Your task to perform on an android device: Go to Yahoo.com Image 0: 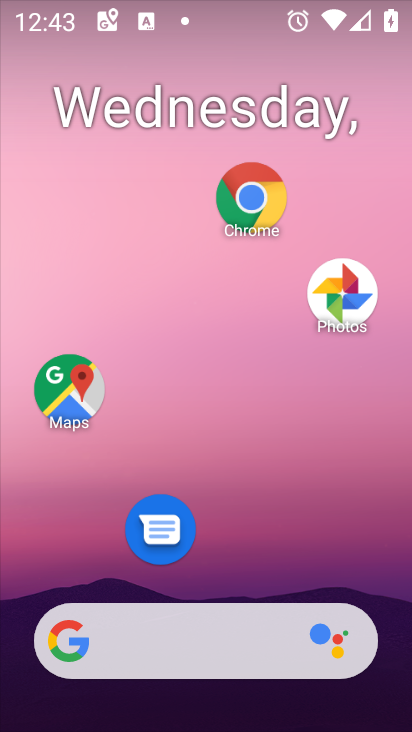
Step 0: press home button
Your task to perform on an android device: Go to Yahoo.com Image 1: 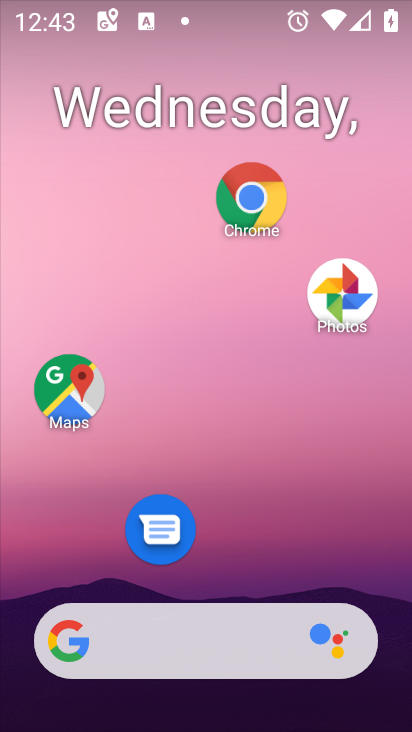
Step 1: drag from (211, 644) to (178, 60)
Your task to perform on an android device: Go to Yahoo.com Image 2: 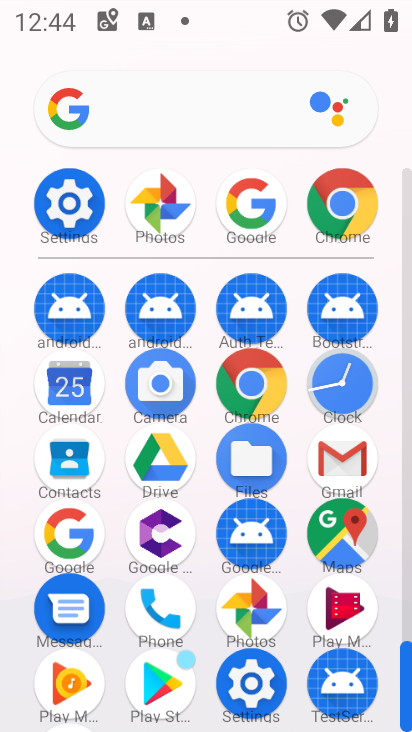
Step 2: click (353, 227)
Your task to perform on an android device: Go to Yahoo.com Image 3: 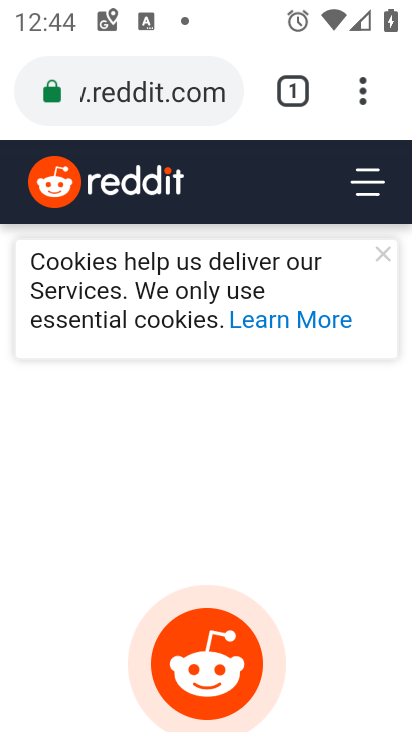
Step 3: click (196, 107)
Your task to perform on an android device: Go to Yahoo.com Image 4: 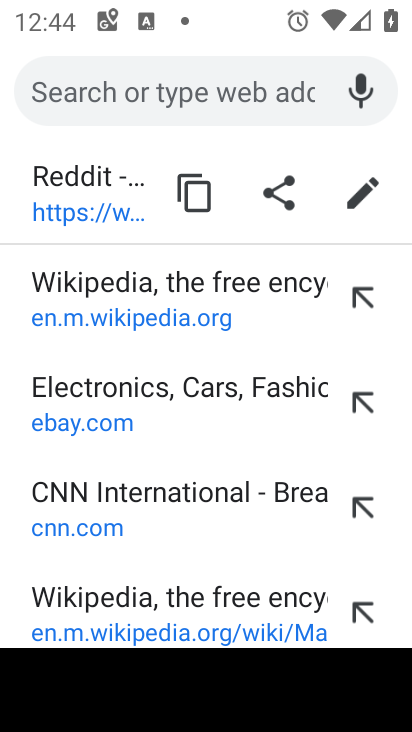
Step 4: type "yahoo"
Your task to perform on an android device: Go to Yahoo.com Image 5: 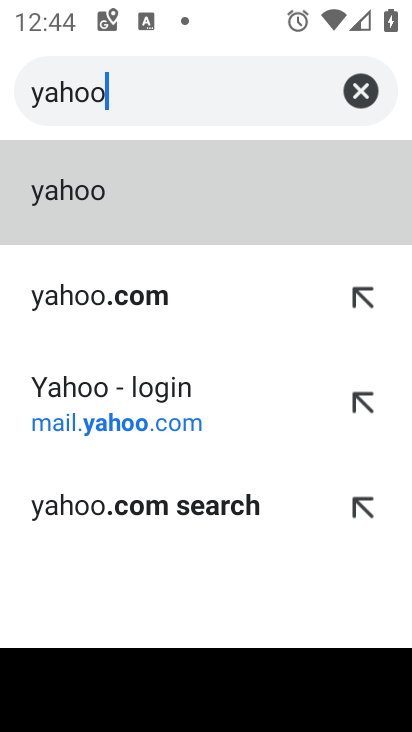
Step 5: click (130, 317)
Your task to perform on an android device: Go to Yahoo.com Image 6: 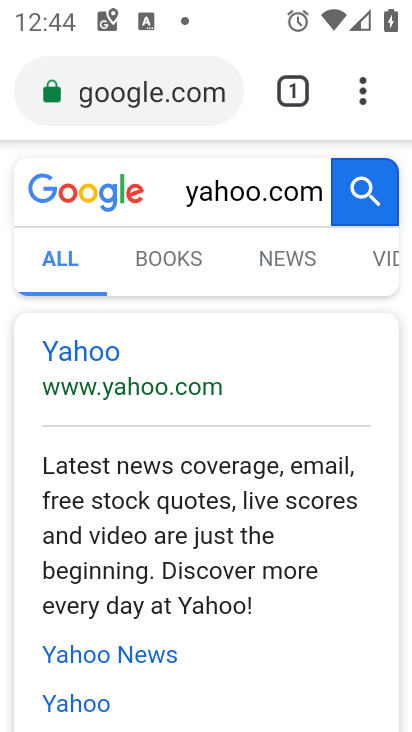
Step 6: click (94, 349)
Your task to perform on an android device: Go to Yahoo.com Image 7: 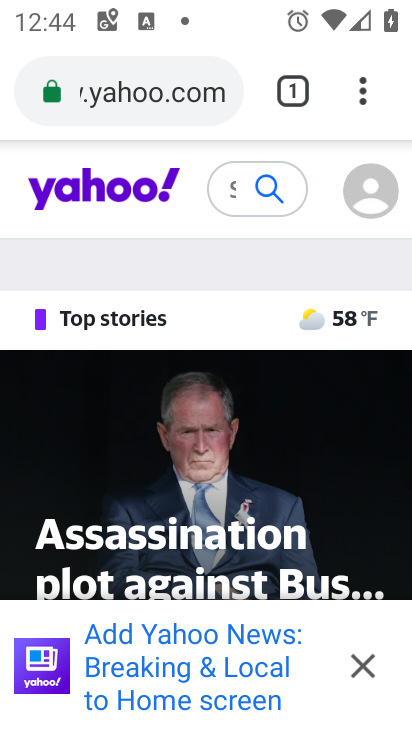
Step 7: task complete